Your task to perform on an android device: Is it going to rain this weekend? Image 0: 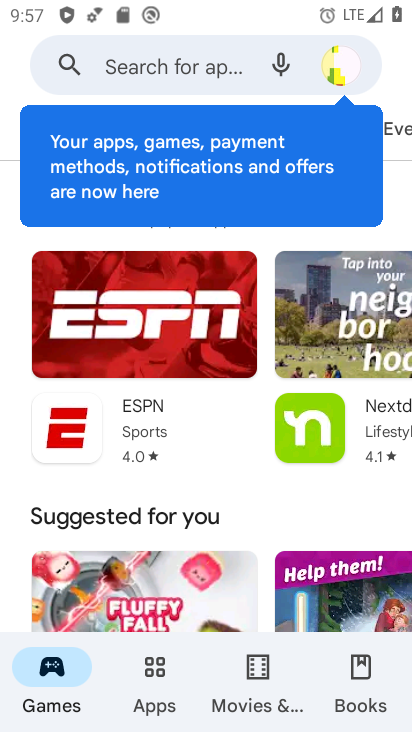
Step 0: press home button
Your task to perform on an android device: Is it going to rain this weekend? Image 1: 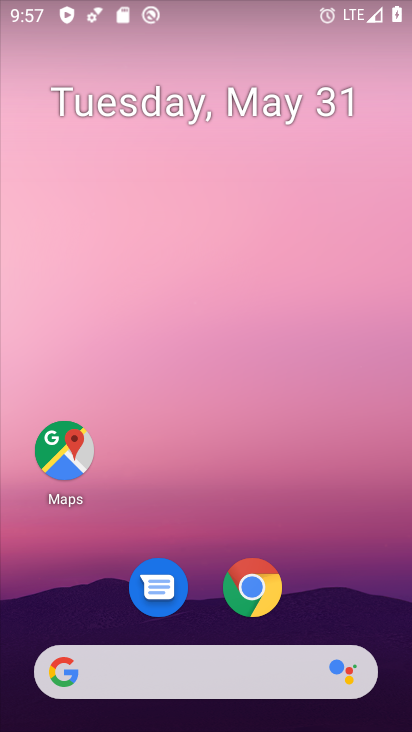
Step 1: click (216, 673)
Your task to perform on an android device: Is it going to rain this weekend? Image 2: 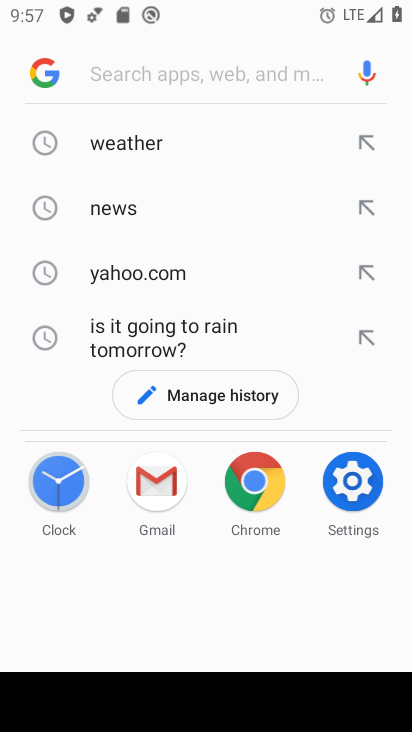
Step 2: click (148, 149)
Your task to perform on an android device: Is it going to rain this weekend? Image 3: 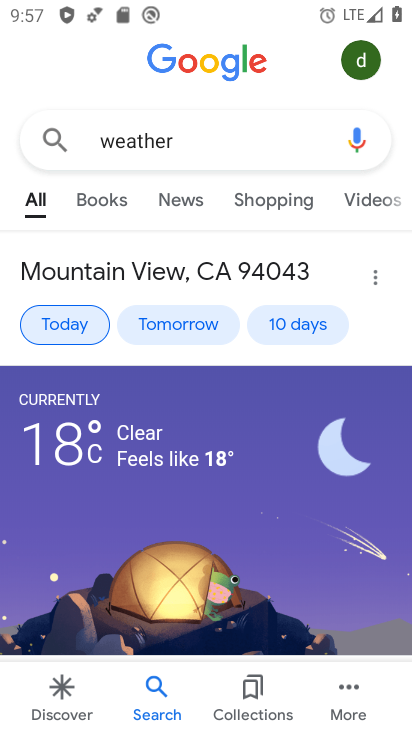
Step 3: click (303, 329)
Your task to perform on an android device: Is it going to rain this weekend? Image 4: 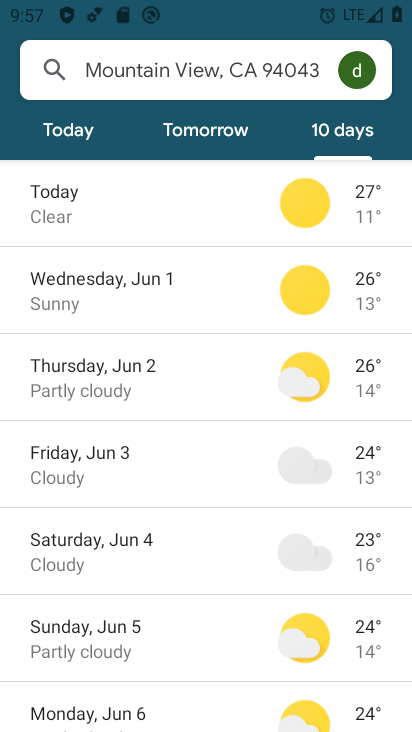
Step 4: drag from (202, 496) to (233, 217)
Your task to perform on an android device: Is it going to rain this weekend? Image 5: 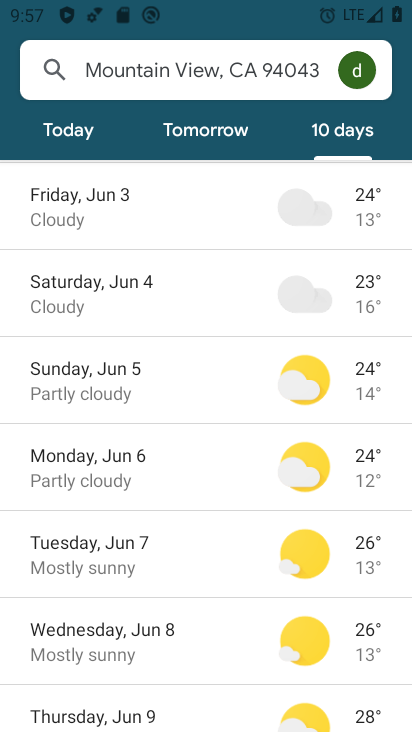
Step 5: click (197, 302)
Your task to perform on an android device: Is it going to rain this weekend? Image 6: 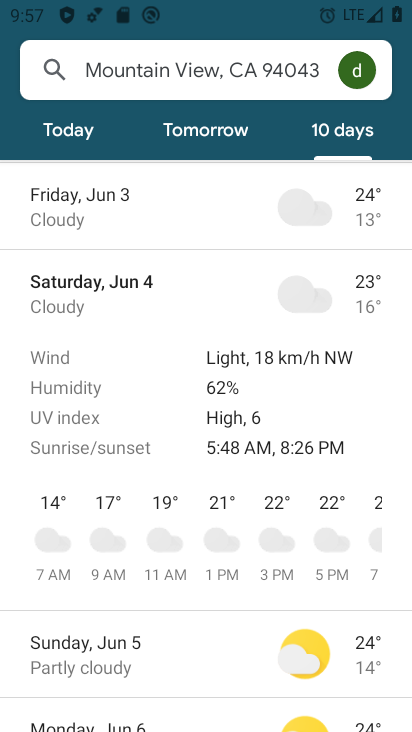
Step 6: task complete